Your task to perform on an android device: Open Google Chrome and open the bookmarks view Image 0: 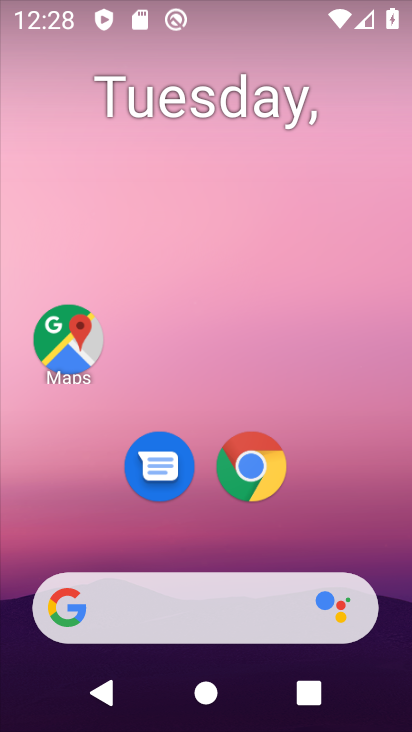
Step 0: click (264, 470)
Your task to perform on an android device: Open Google Chrome and open the bookmarks view Image 1: 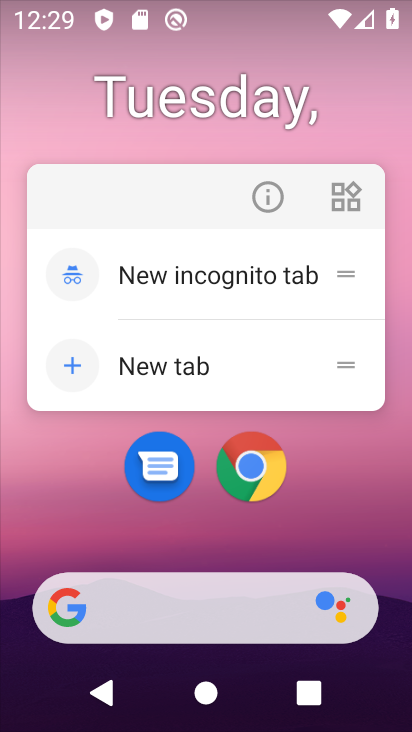
Step 1: click (268, 453)
Your task to perform on an android device: Open Google Chrome and open the bookmarks view Image 2: 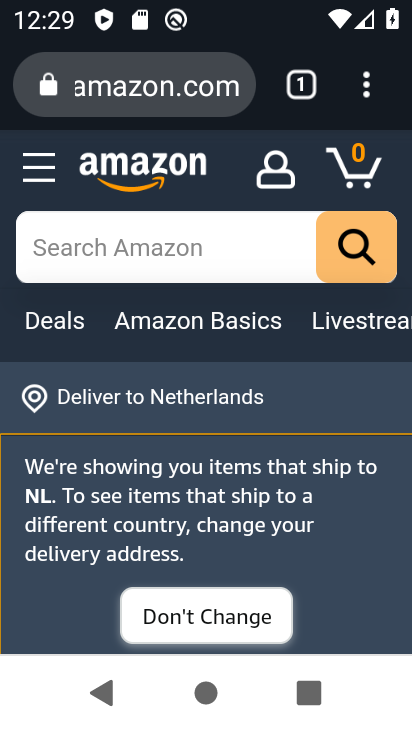
Step 2: task complete